Your task to perform on an android device: Show me the alarms in the clock app Image 0: 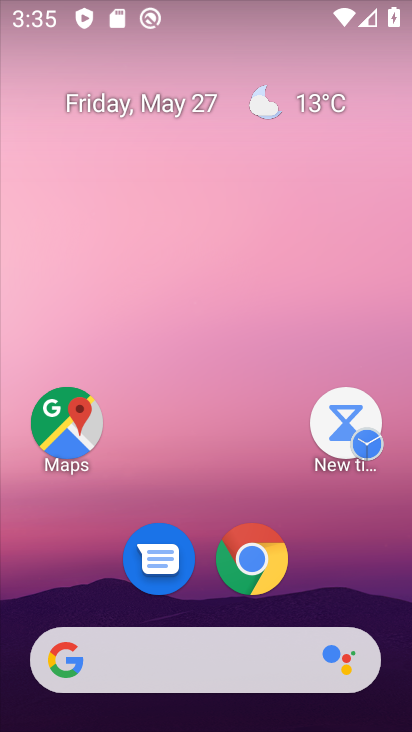
Step 0: drag from (185, 342) to (141, 261)
Your task to perform on an android device: Show me the alarms in the clock app Image 1: 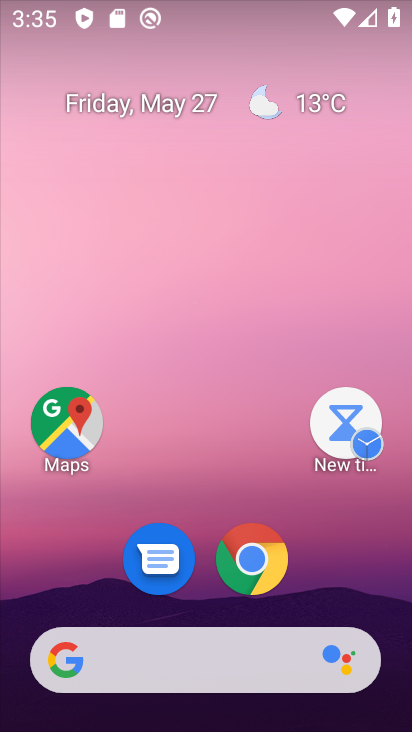
Step 1: drag from (218, 426) to (108, 140)
Your task to perform on an android device: Show me the alarms in the clock app Image 2: 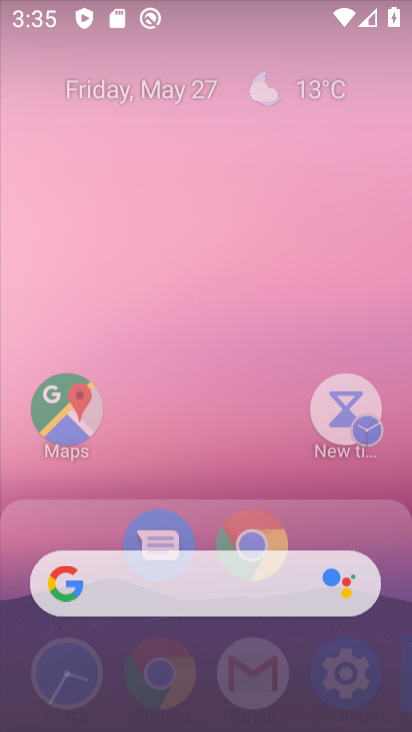
Step 2: drag from (107, 137) to (99, 78)
Your task to perform on an android device: Show me the alarms in the clock app Image 3: 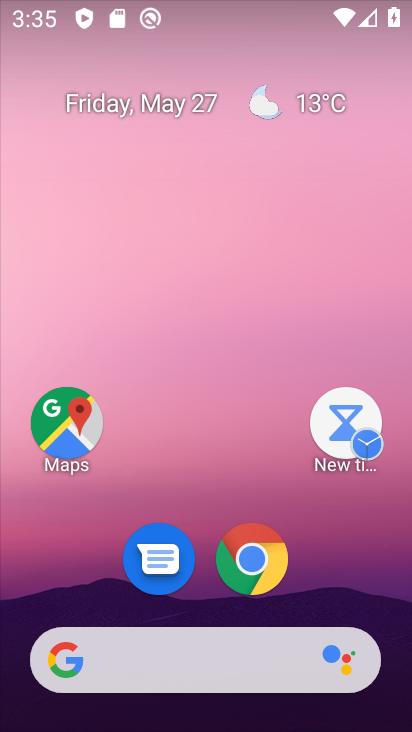
Step 3: drag from (313, 509) to (157, 122)
Your task to perform on an android device: Show me the alarms in the clock app Image 4: 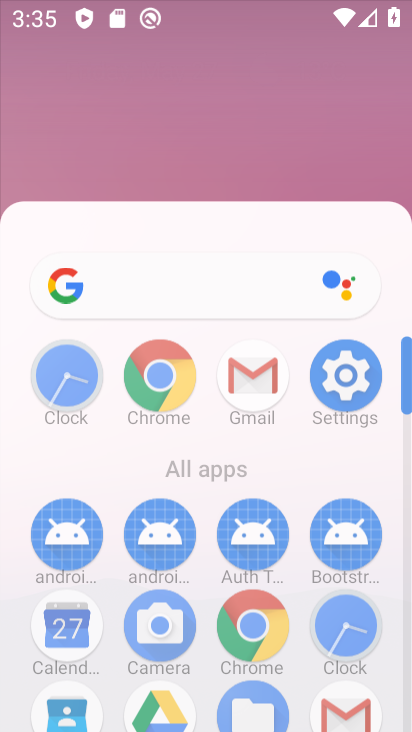
Step 4: drag from (278, 476) to (179, 252)
Your task to perform on an android device: Show me the alarms in the clock app Image 5: 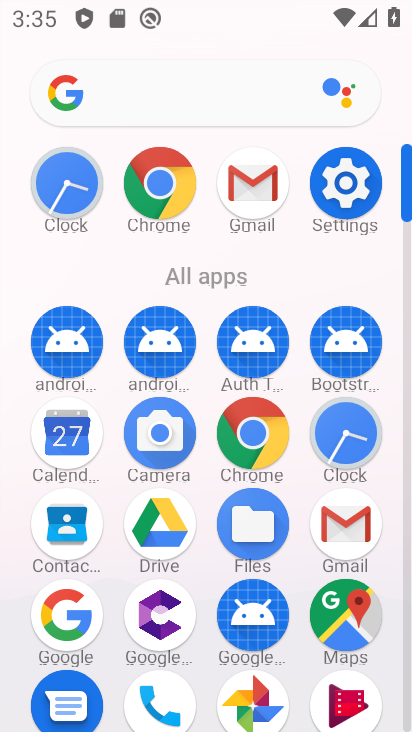
Step 5: drag from (345, 557) to (137, 92)
Your task to perform on an android device: Show me the alarms in the clock app Image 6: 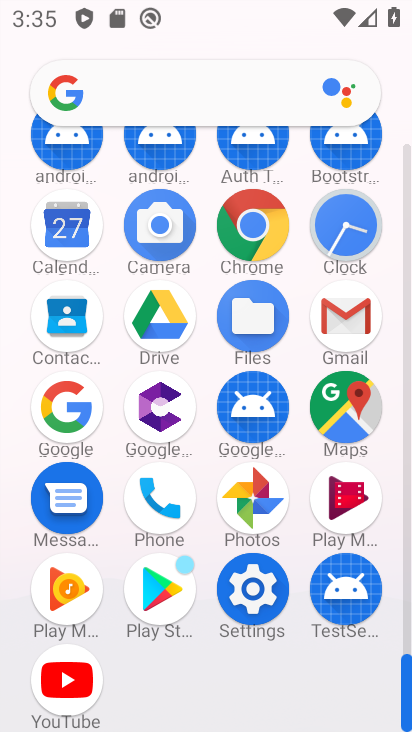
Step 6: click (321, 218)
Your task to perform on an android device: Show me the alarms in the clock app Image 7: 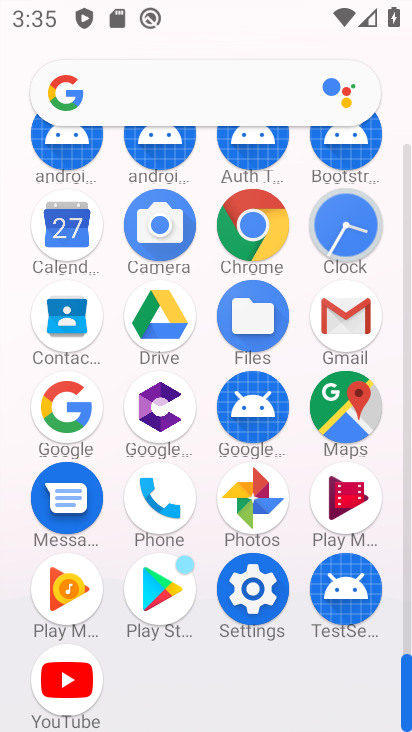
Step 7: click (322, 215)
Your task to perform on an android device: Show me the alarms in the clock app Image 8: 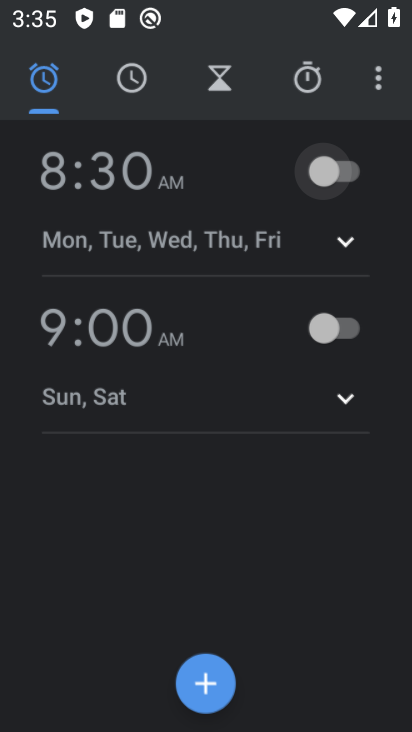
Step 8: click (323, 213)
Your task to perform on an android device: Show me the alarms in the clock app Image 9: 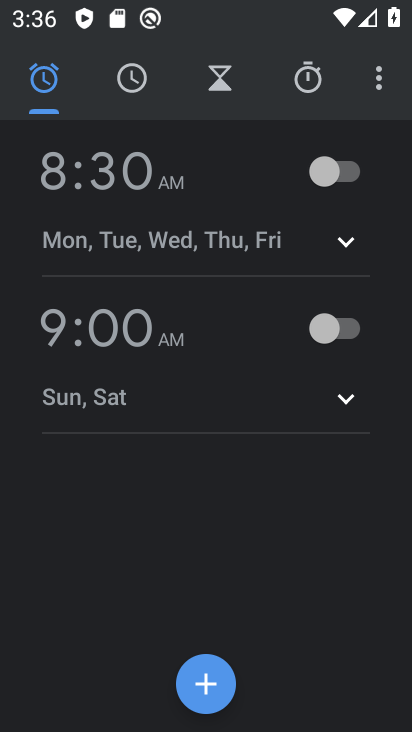
Step 9: click (330, 169)
Your task to perform on an android device: Show me the alarms in the clock app Image 10: 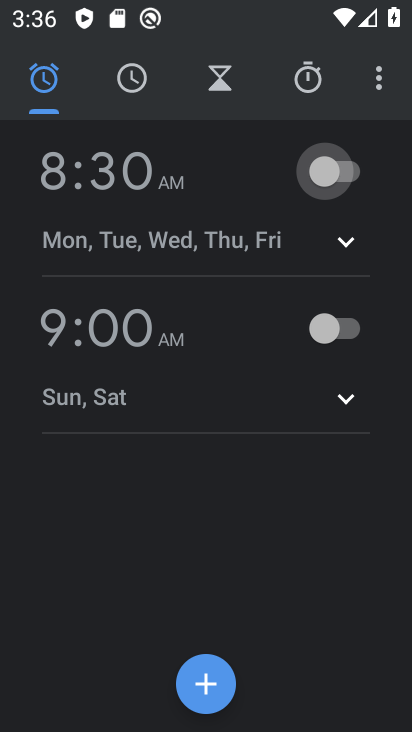
Step 10: click (330, 169)
Your task to perform on an android device: Show me the alarms in the clock app Image 11: 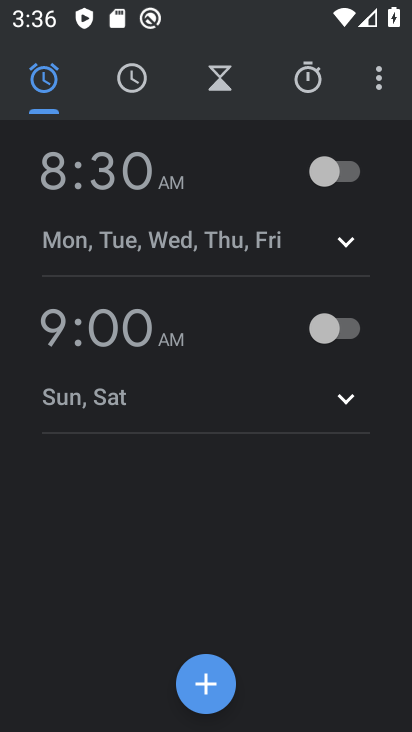
Step 11: click (326, 171)
Your task to perform on an android device: Show me the alarms in the clock app Image 12: 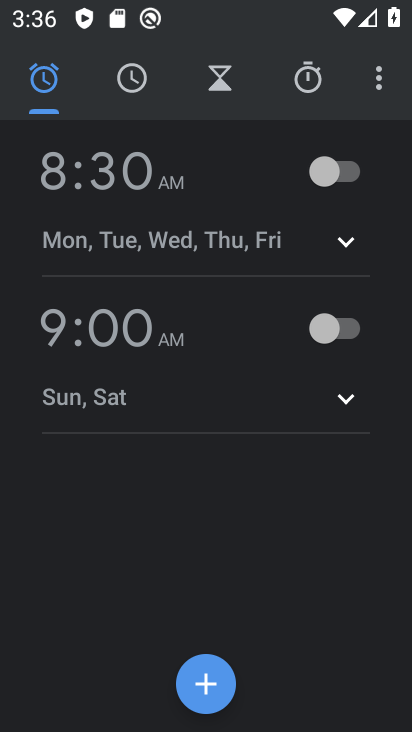
Step 12: click (327, 170)
Your task to perform on an android device: Show me the alarms in the clock app Image 13: 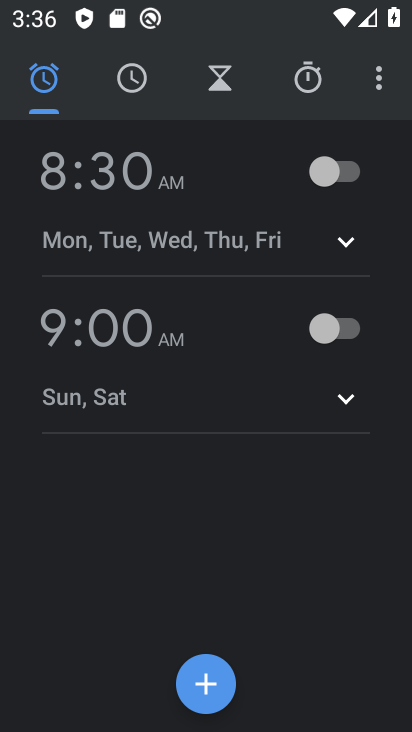
Step 13: task complete